Your task to perform on an android device: turn off data saver in the chrome app Image 0: 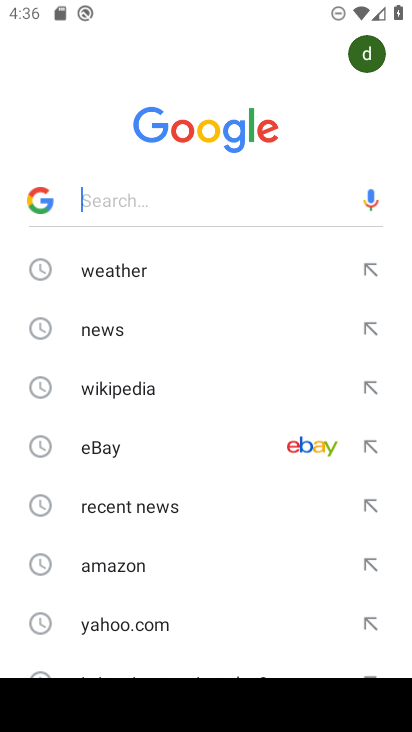
Step 0: press home button
Your task to perform on an android device: turn off data saver in the chrome app Image 1: 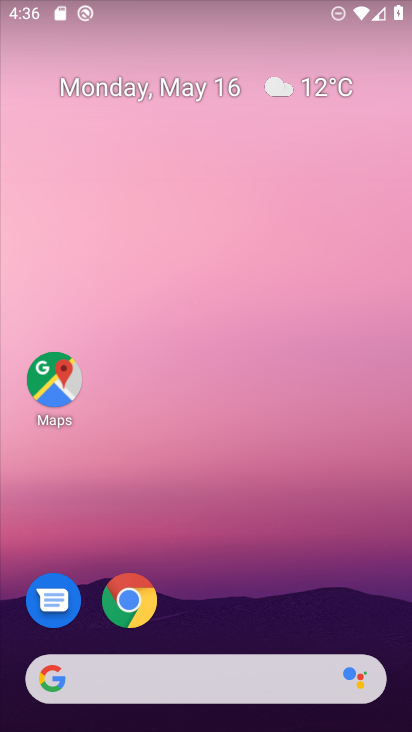
Step 1: click (131, 599)
Your task to perform on an android device: turn off data saver in the chrome app Image 2: 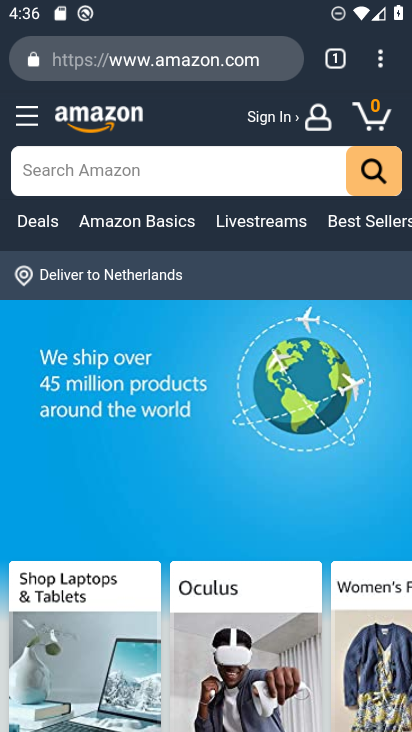
Step 2: click (377, 56)
Your task to perform on an android device: turn off data saver in the chrome app Image 3: 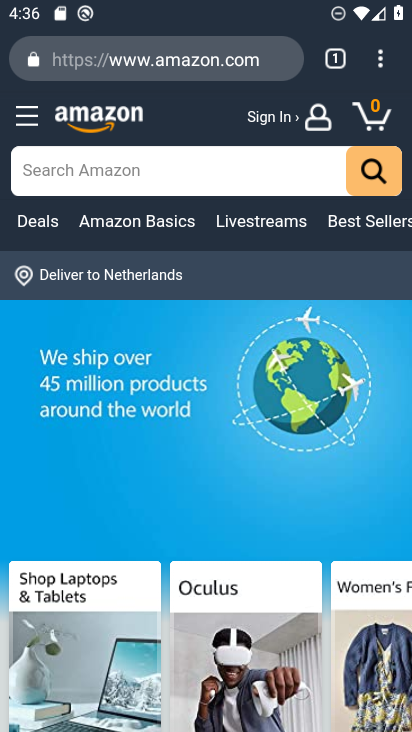
Step 3: drag from (374, 51) to (268, 635)
Your task to perform on an android device: turn off data saver in the chrome app Image 4: 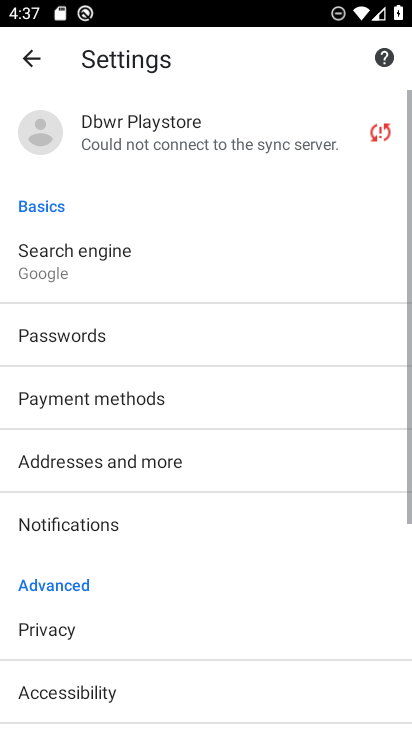
Step 4: drag from (220, 655) to (286, 72)
Your task to perform on an android device: turn off data saver in the chrome app Image 5: 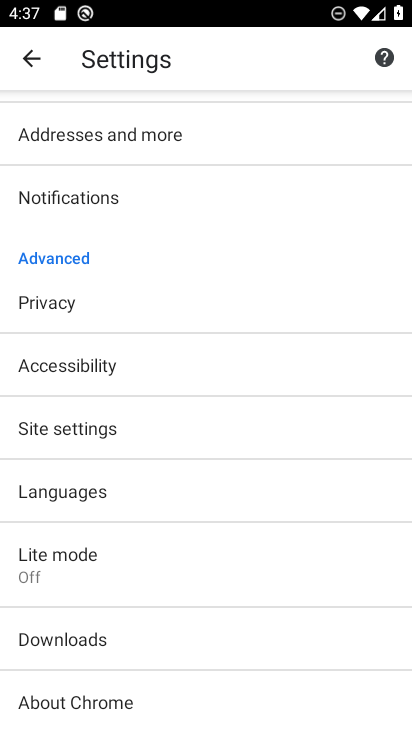
Step 5: click (161, 551)
Your task to perform on an android device: turn off data saver in the chrome app Image 6: 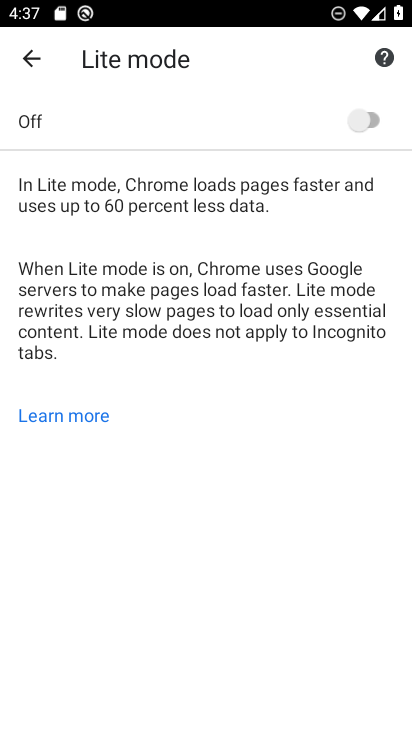
Step 6: task complete